Your task to perform on an android device: Search for "sony triple a" on amazon, select the first entry, and add it to the cart. Image 0: 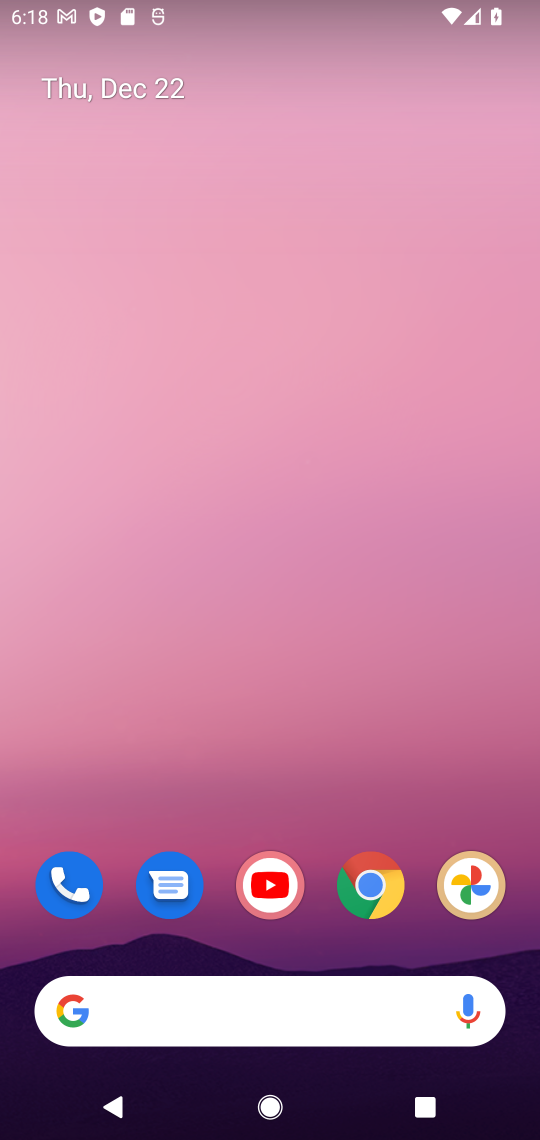
Step 0: click (375, 903)
Your task to perform on an android device: Search for "sony triple a" on amazon, select the first entry, and add it to the cart. Image 1: 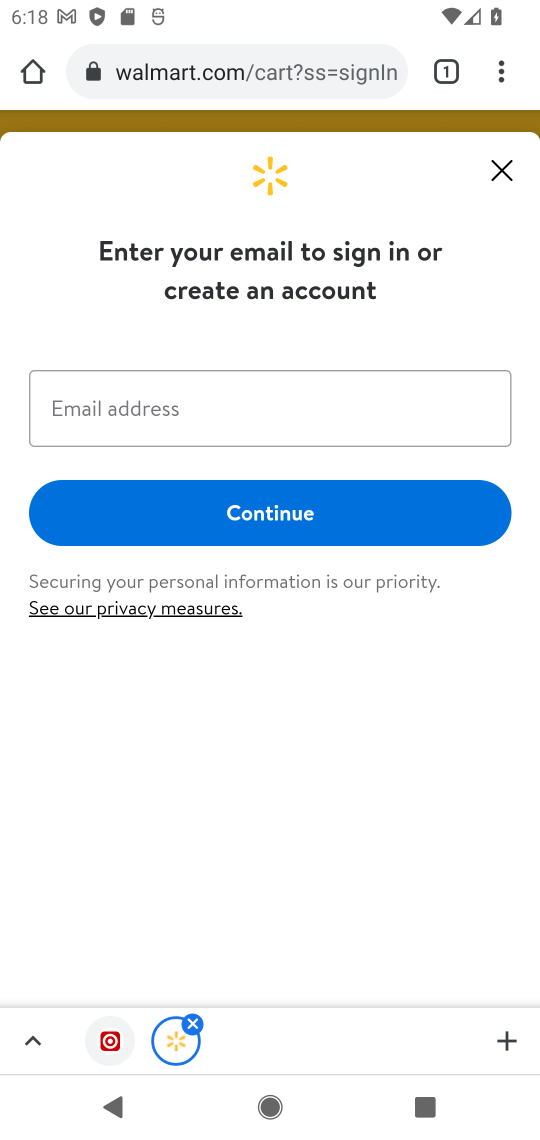
Step 1: click (239, 83)
Your task to perform on an android device: Search for "sony triple a" on amazon, select the first entry, and add it to the cart. Image 2: 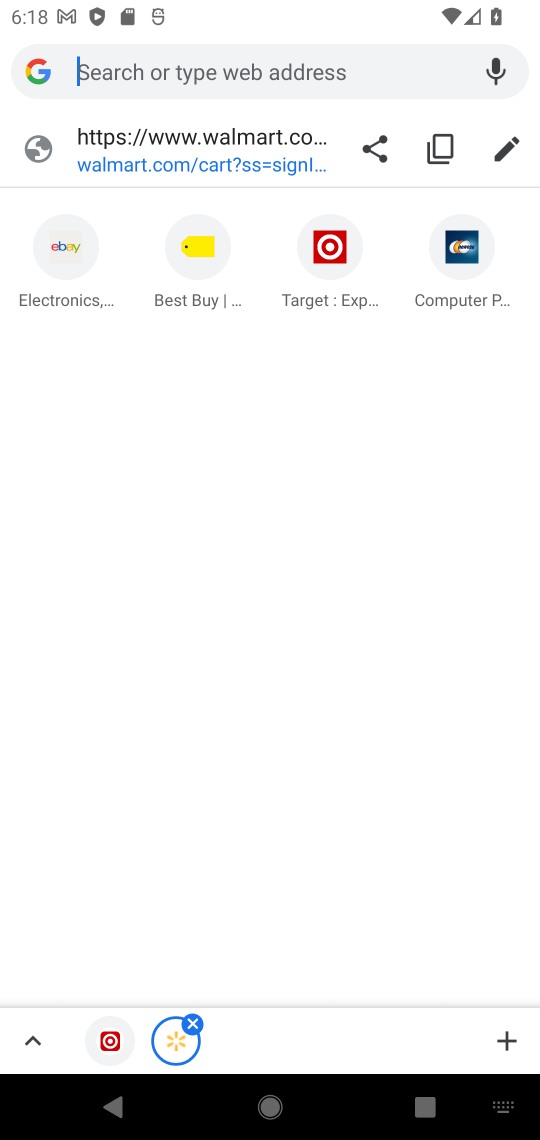
Step 2: type "amazon.com"
Your task to perform on an android device: Search for "sony triple a" on amazon, select the first entry, and add it to the cart. Image 3: 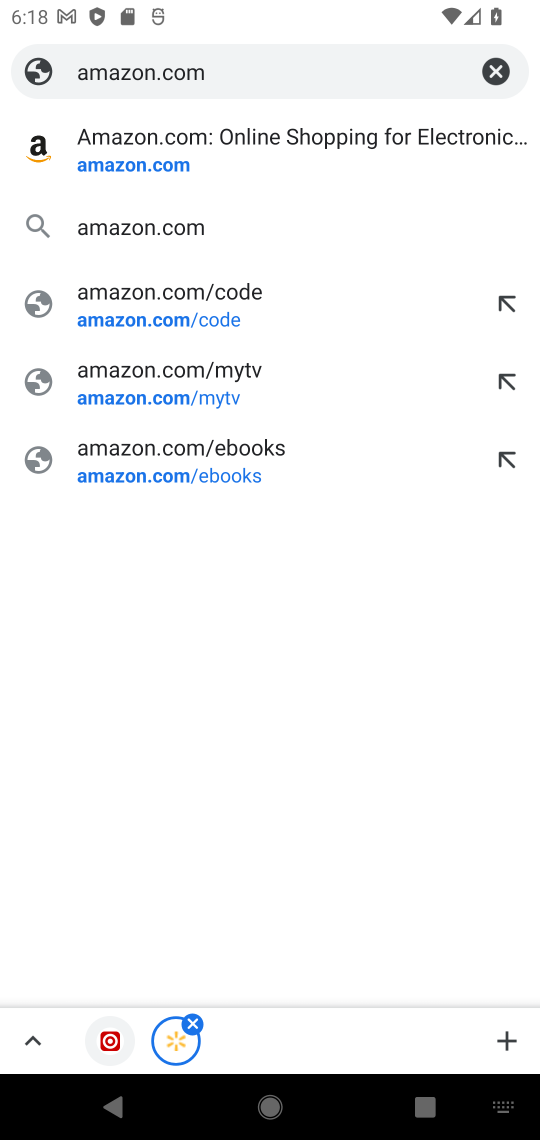
Step 3: click (118, 170)
Your task to perform on an android device: Search for "sony triple a" on amazon, select the first entry, and add it to the cart. Image 4: 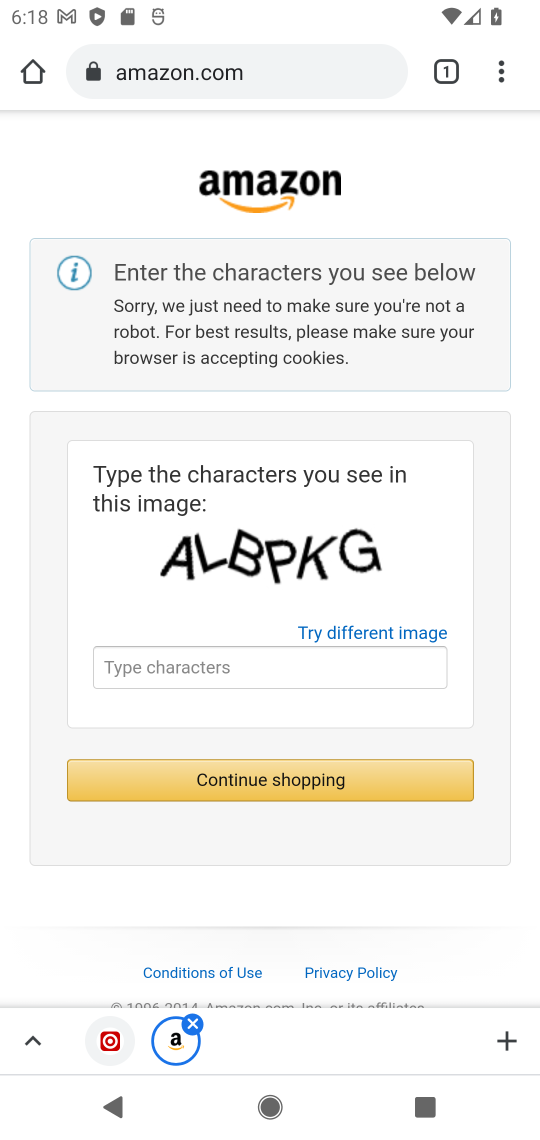
Step 4: click (114, 682)
Your task to perform on an android device: Search for "sony triple a" on amazon, select the first entry, and add it to the cart. Image 5: 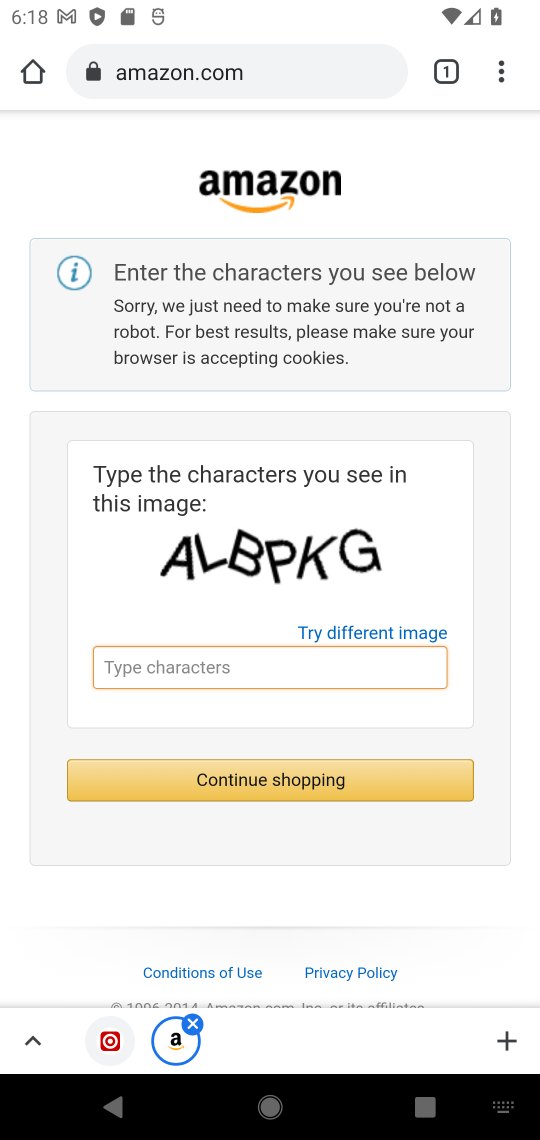
Step 5: type "ALBPKG"
Your task to perform on an android device: Search for "sony triple a" on amazon, select the first entry, and add it to the cart. Image 6: 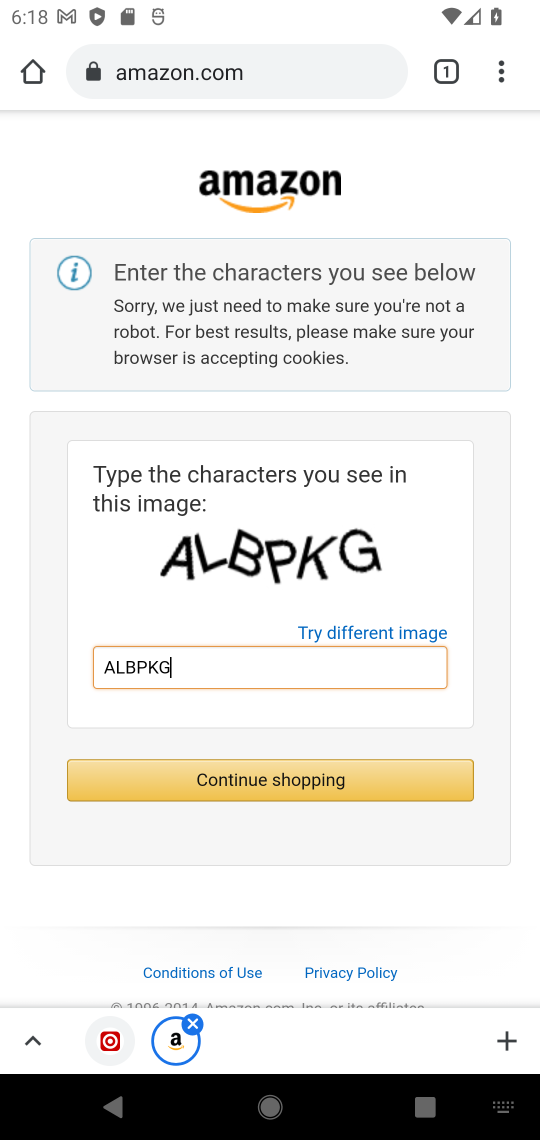
Step 6: click (285, 777)
Your task to perform on an android device: Search for "sony triple a" on amazon, select the first entry, and add it to the cart. Image 7: 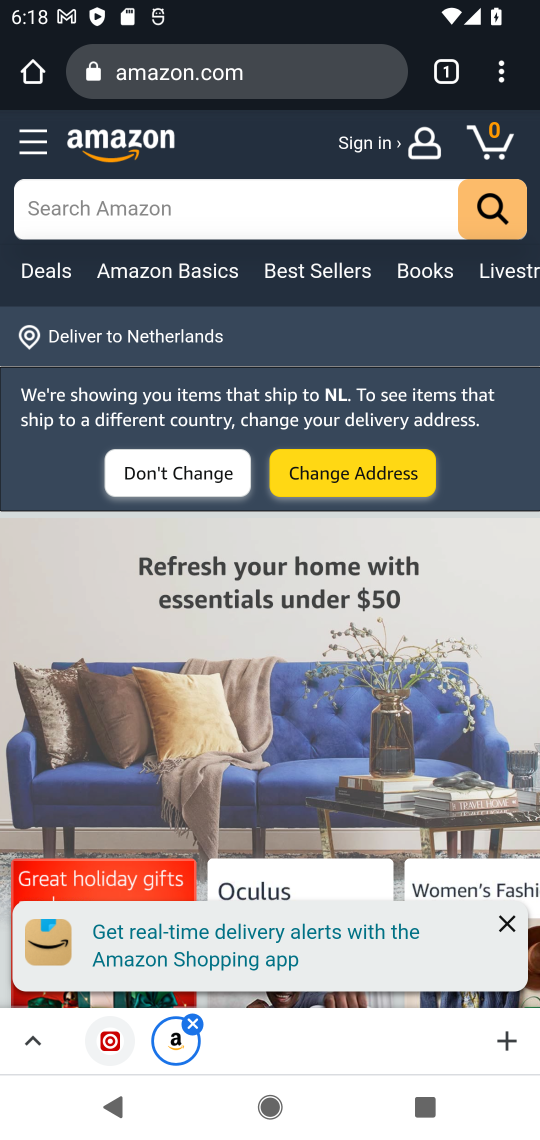
Step 7: click (65, 227)
Your task to perform on an android device: Search for "sony triple a" on amazon, select the first entry, and add it to the cart. Image 8: 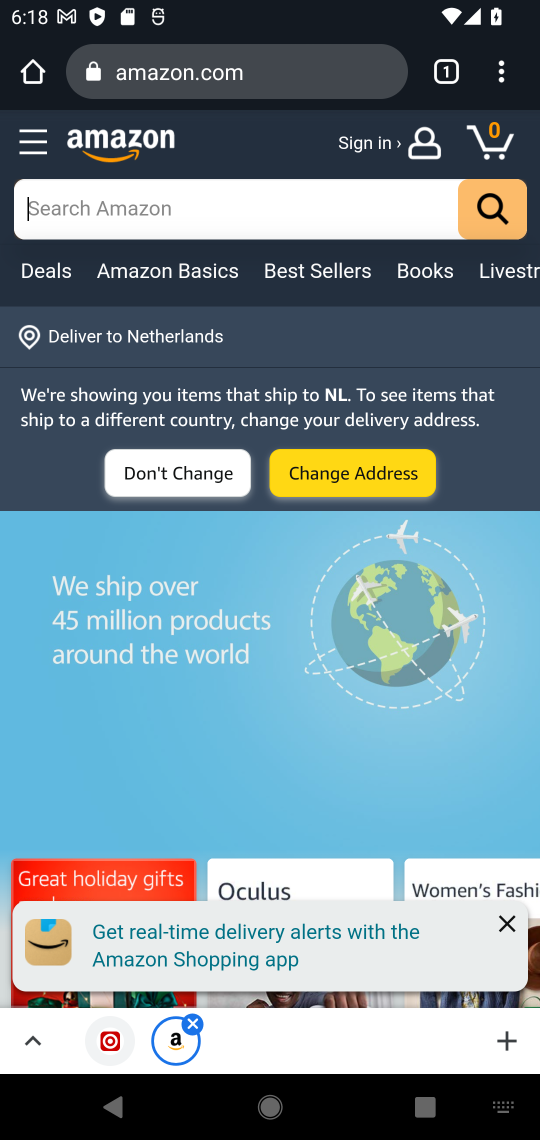
Step 8: type "sony triple a"
Your task to perform on an android device: Search for "sony triple a" on amazon, select the first entry, and add it to the cart. Image 9: 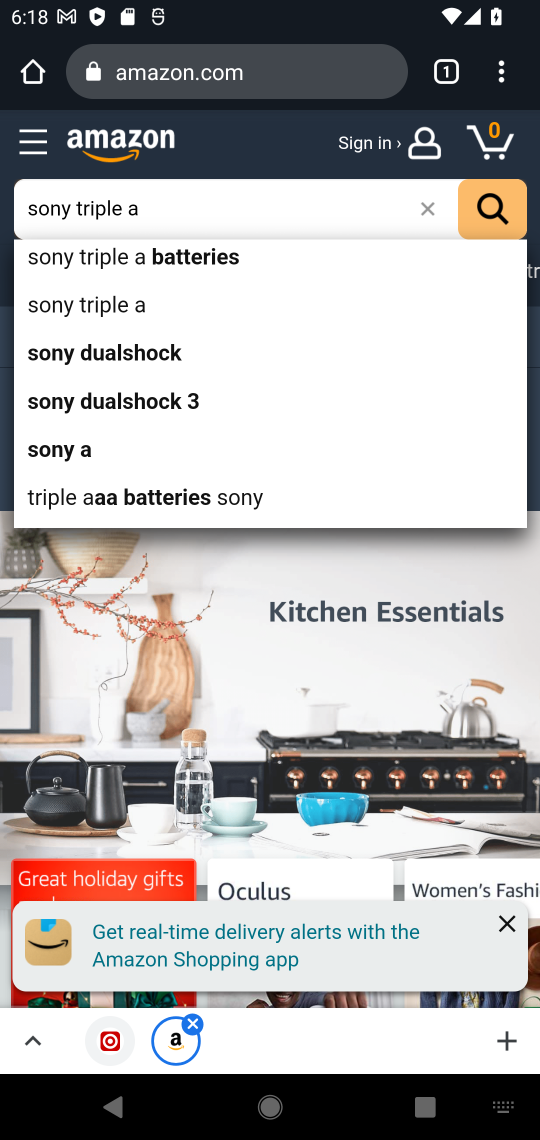
Step 9: click (151, 265)
Your task to perform on an android device: Search for "sony triple a" on amazon, select the first entry, and add it to the cart. Image 10: 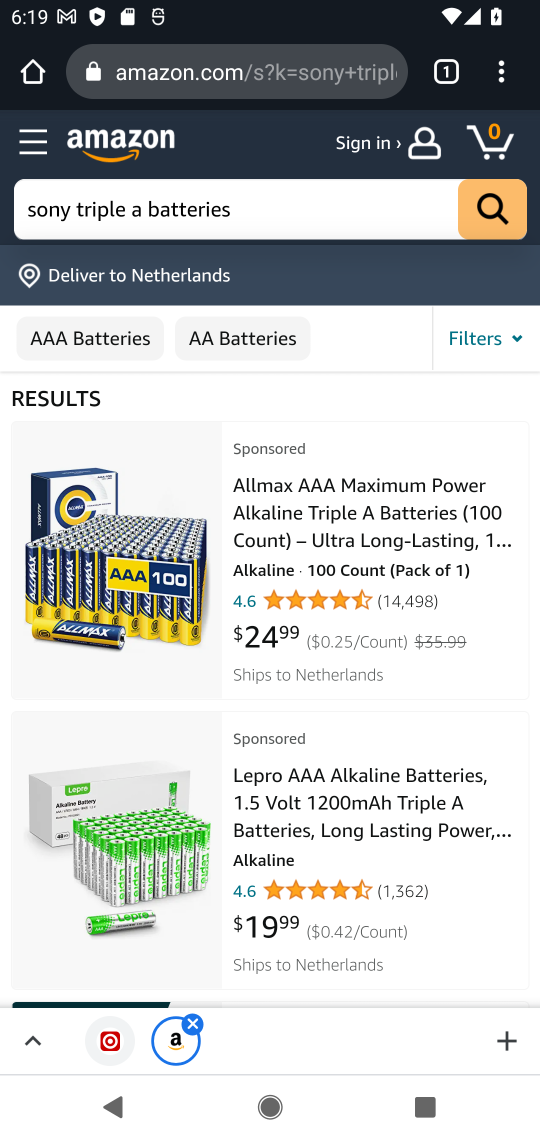
Step 10: task complete